Your task to perform on an android device: Go to ESPN.com Image 0: 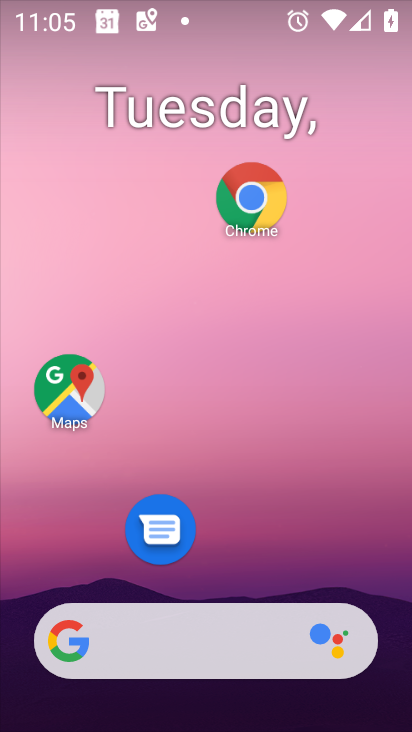
Step 0: click (256, 230)
Your task to perform on an android device: Go to ESPN.com Image 1: 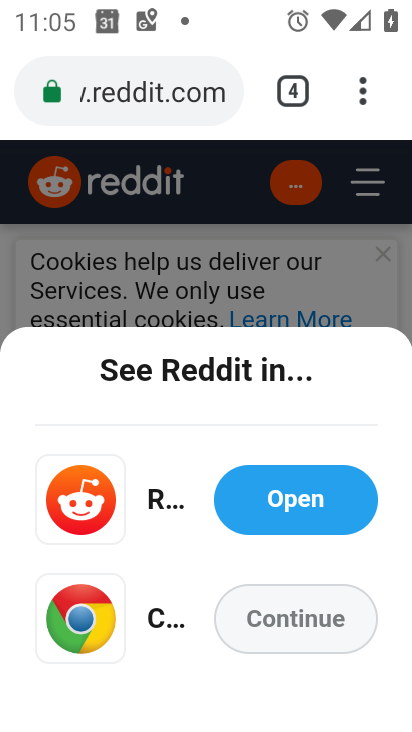
Step 1: click (269, 615)
Your task to perform on an android device: Go to ESPN.com Image 2: 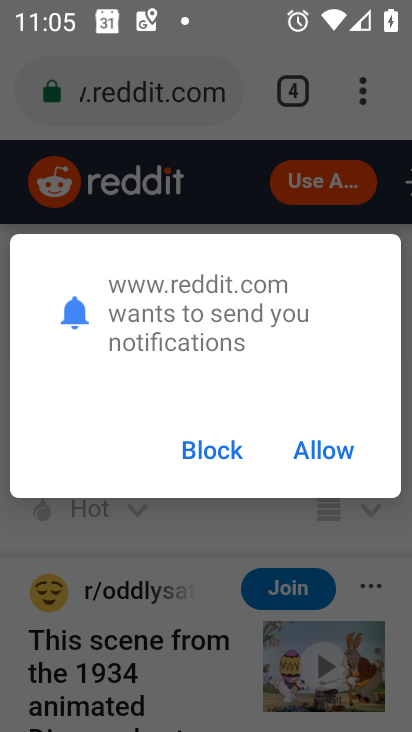
Step 2: click (316, 463)
Your task to perform on an android device: Go to ESPN.com Image 3: 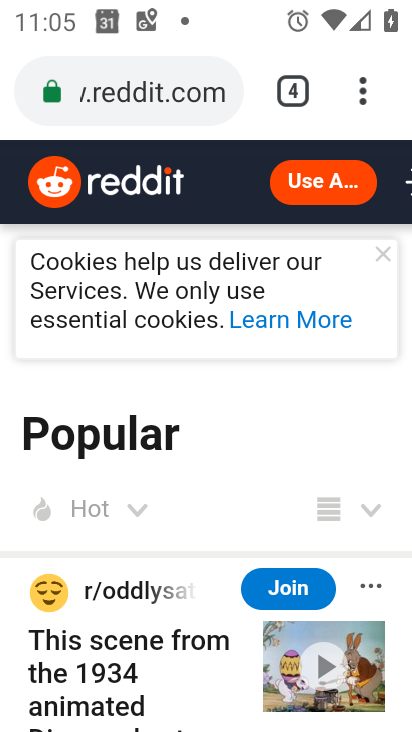
Step 3: click (177, 107)
Your task to perform on an android device: Go to ESPN.com Image 4: 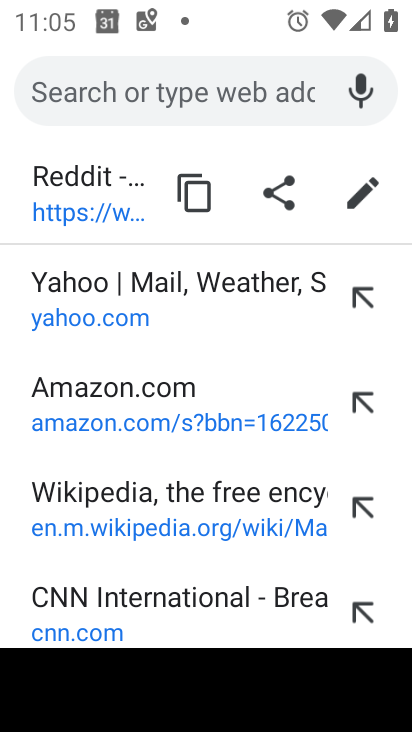
Step 4: type "espc"
Your task to perform on an android device: Go to ESPN.com Image 5: 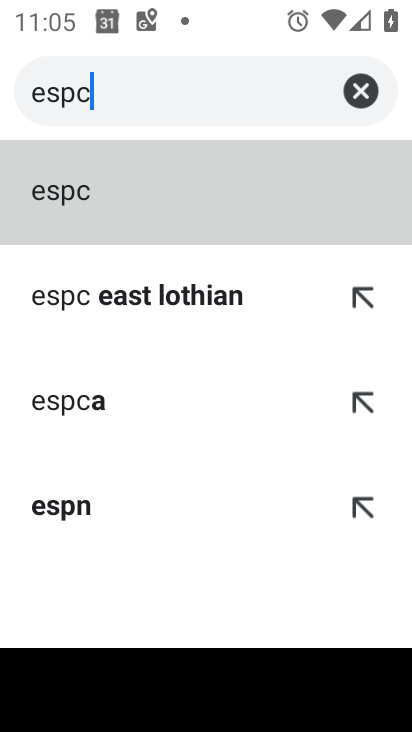
Step 5: click (70, 501)
Your task to perform on an android device: Go to ESPN.com Image 6: 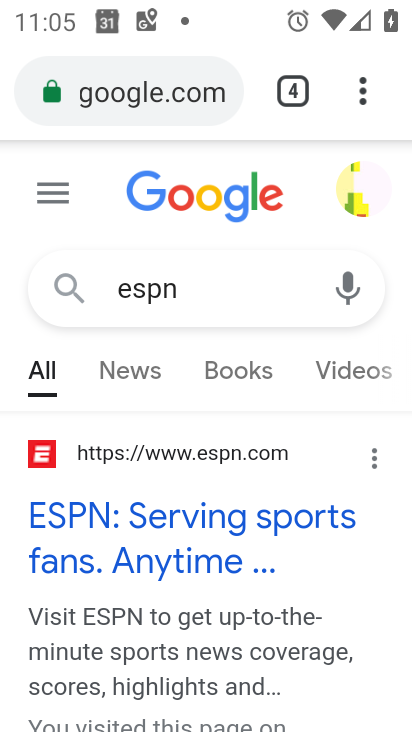
Step 6: click (84, 528)
Your task to perform on an android device: Go to ESPN.com Image 7: 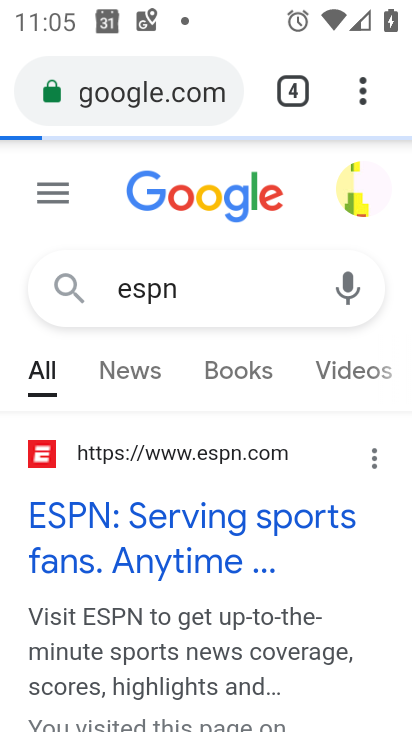
Step 7: task complete